Your task to perform on an android device: turn notification dots off Image 0: 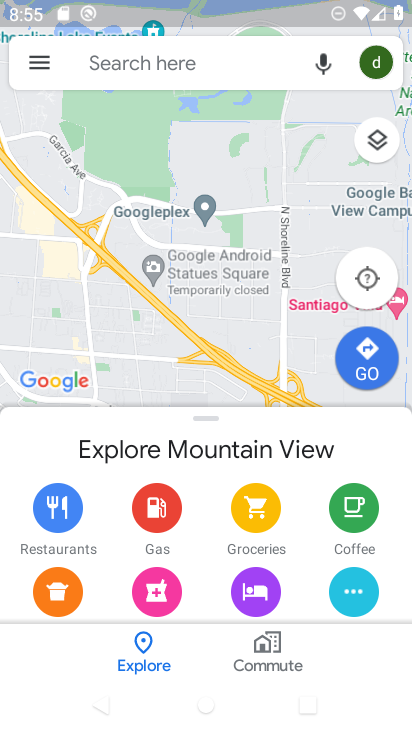
Step 0: press home button
Your task to perform on an android device: turn notification dots off Image 1: 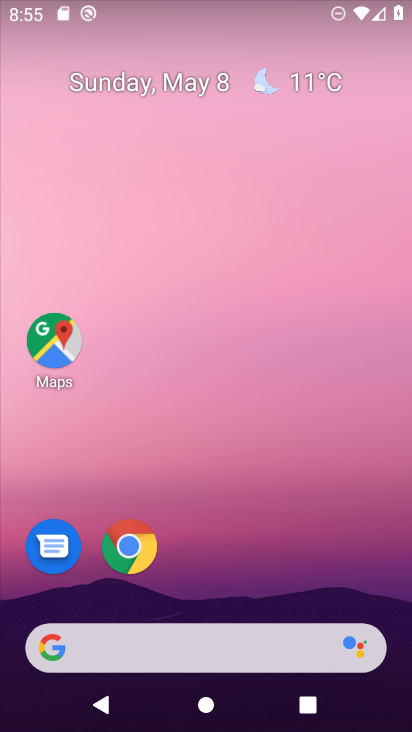
Step 1: drag from (242, 517) to (246, 52)
Your task to perform on an android device: turn notification dots off Image 2: 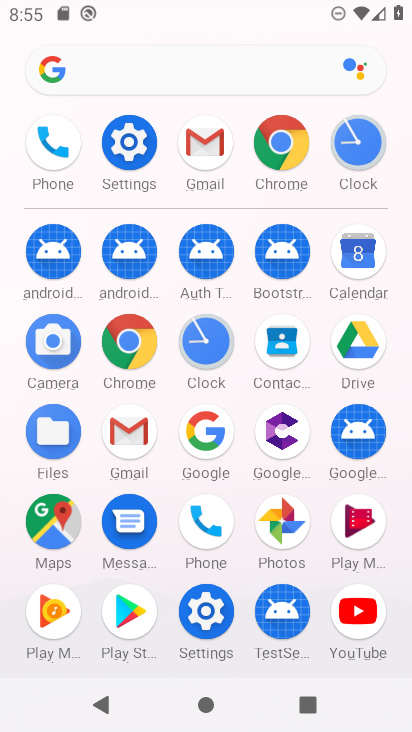
Step 2: click (116, 139)
Your task to perform on an android device: turn notification dots off Image 3: 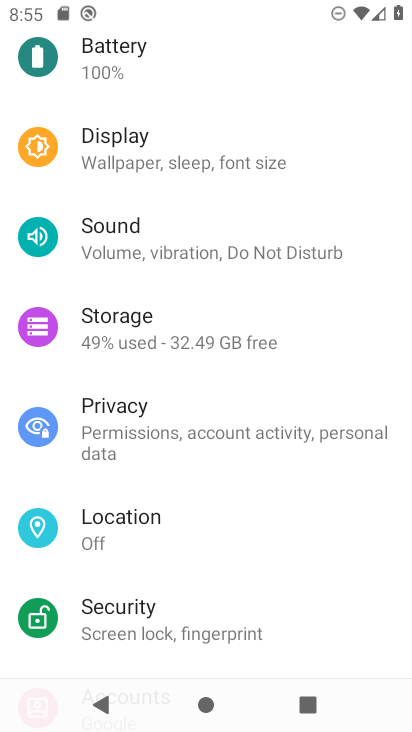
Step 3: click (243, 542)
Your task to perform on an android device: turn notification dots off Image 4: 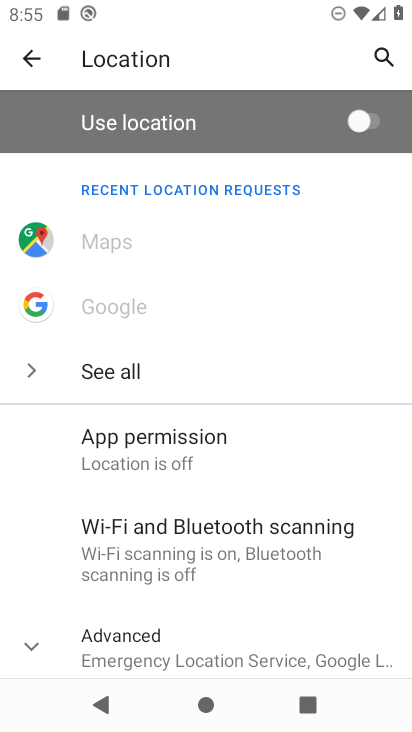
Step 4: drag from (277, 451) to (333, 170)
Your task to perform on an android device: turn notification dots off Image 5: 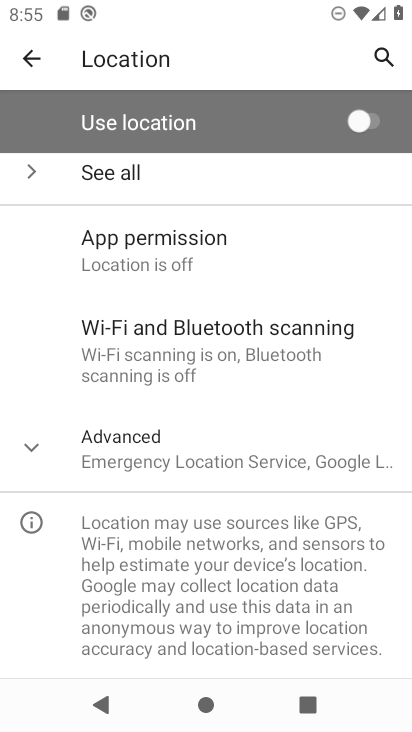
Step 5: click (24, 54)
Your task to perform on an android device: turn notification dots off Image 6: 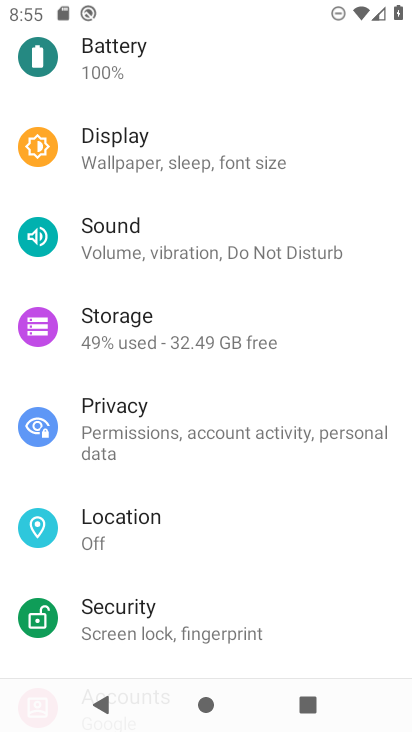
Step 6: drag from (220, 136) to (262, 530)
Your task to perform on an android device: turn notification dots off Image 7: 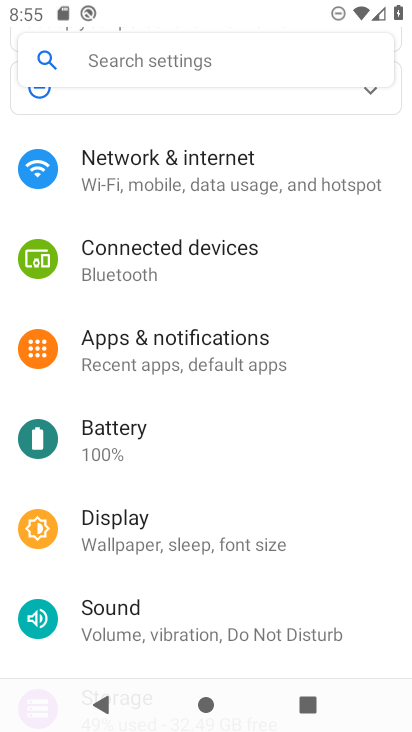
Step 7: click (216, 354)
Your task to perform on an android device: turn notification dots off Image 8: 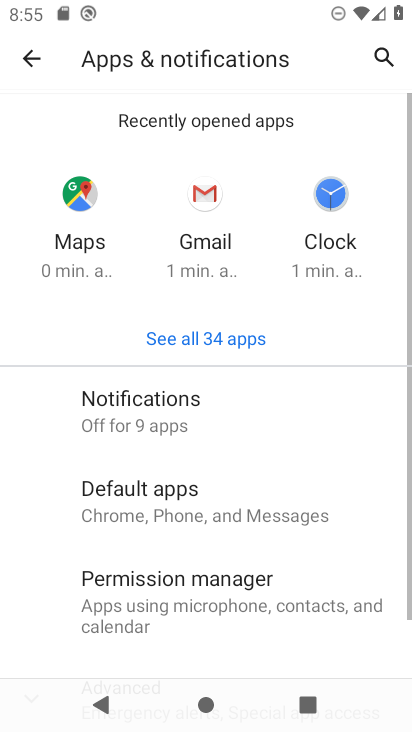
Step 8: click (209, 401)
Your task to perform on an android device: turn notification dots off Image 9: 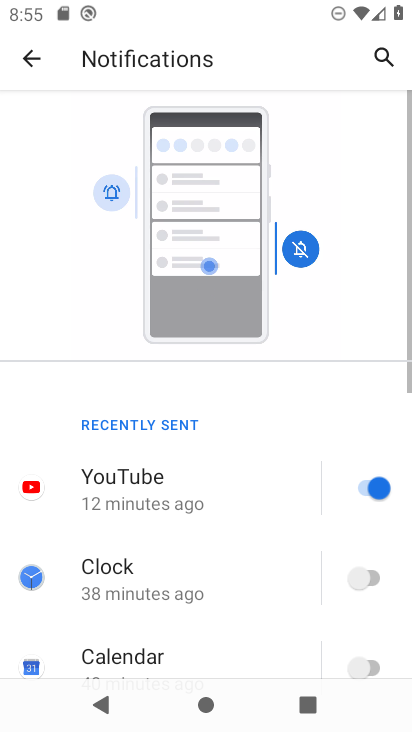
Step 9: drag from (239, 582) to (234, 198)
Your task to perform on an android device: turn notification dots off Image 10: 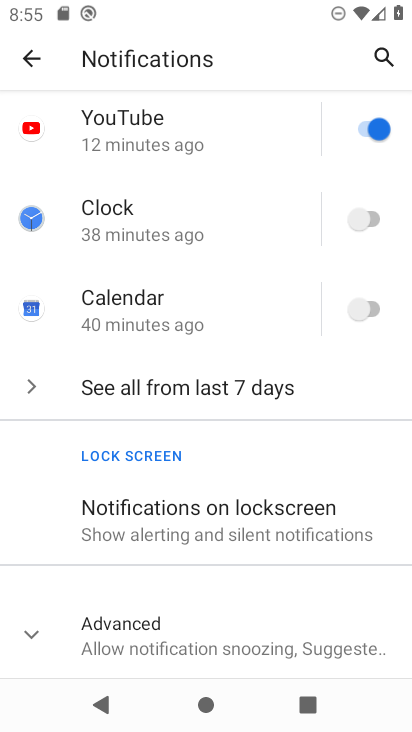
Step 10: click (32, 626)
Your task to perform on an android device: turn notification dots off Image 11: 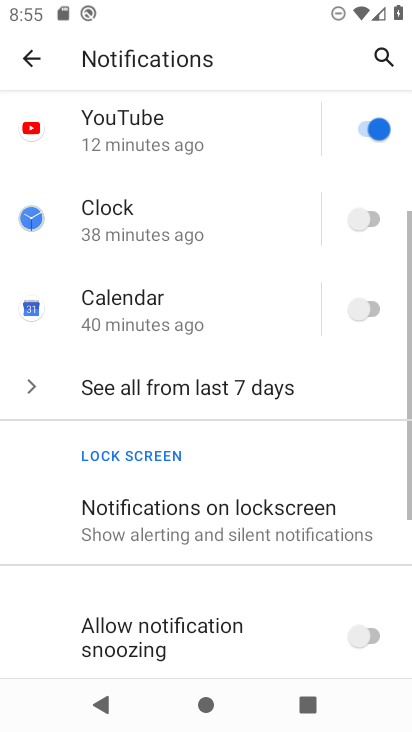
Step 11: drag from (198, 525) to (218, 116)
Your task to perform on an android device: turn notification dots off Image 12: 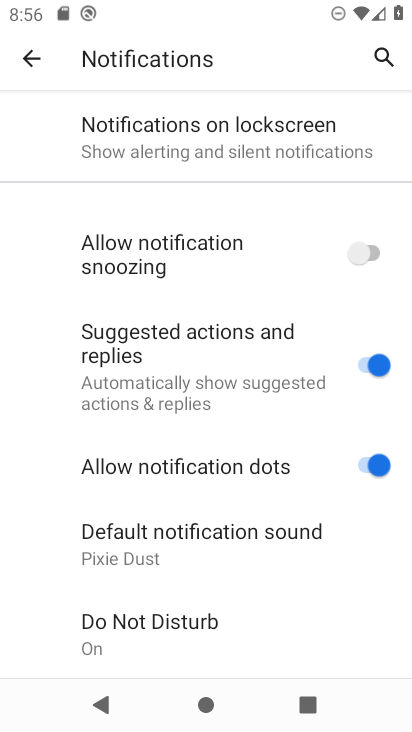
Step 12: click (357, 450)
Your task to perform on an android device: turn notification dots off Image 13: 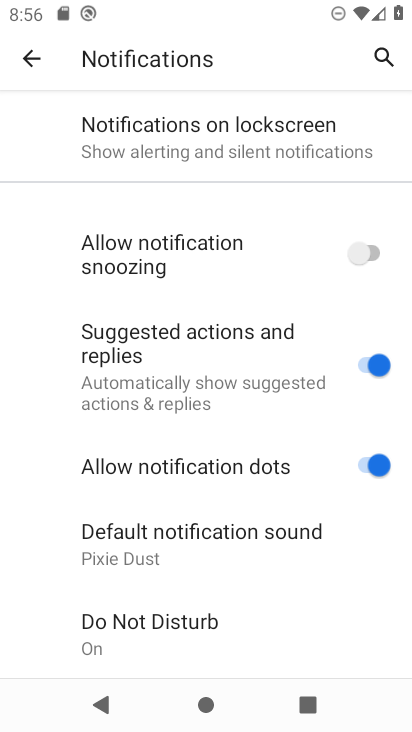
Step 13: click (373, 471)
Your task to perform on an android device: turn notification dots off Image 14: 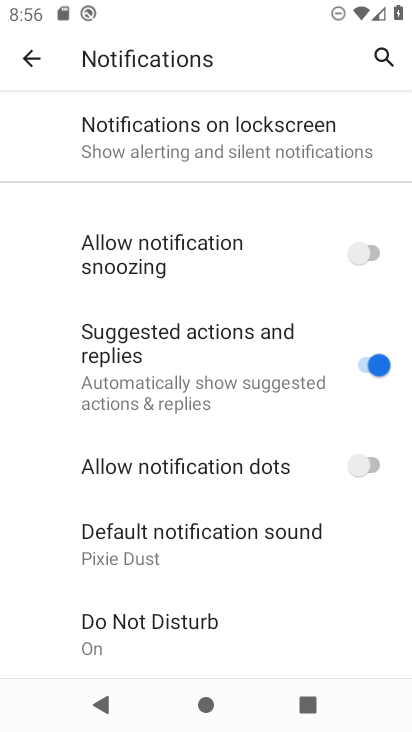
Step 14: task complete